Your task to perform on an android device: move a message to another label in the gmail app Image 0: 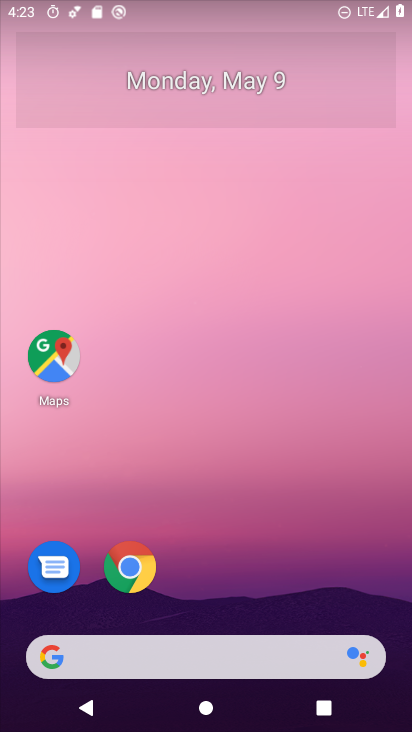
Step 0: drag from (172, 81) to (165, 35)
Your task to perform on an android device: move a message to another label in the gmail app Image 1: 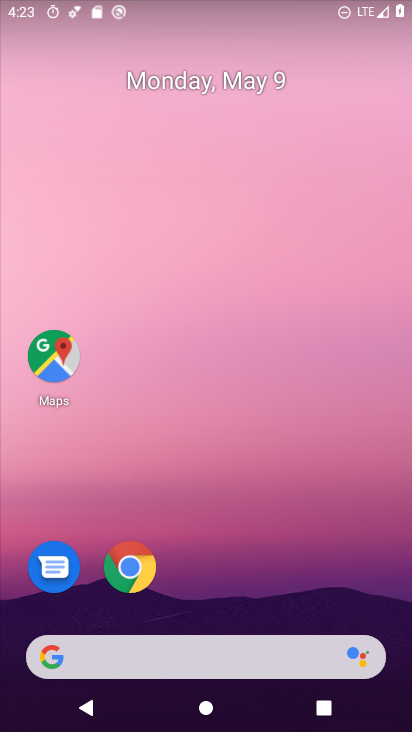
Step 1: drag from (282, 582) to (242, 135)
Your task to perform on an android device: move a message to another label in the gmail app Image 2: 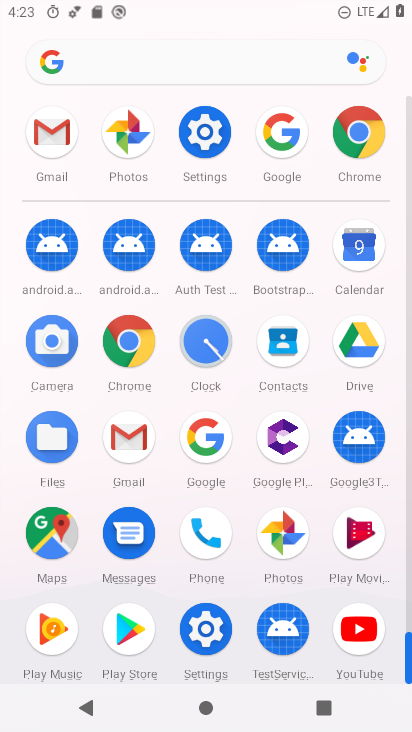
Step 2: click (60, 143)
Your task to perform on an android device: move a message to another label in the gmail app Image 3: 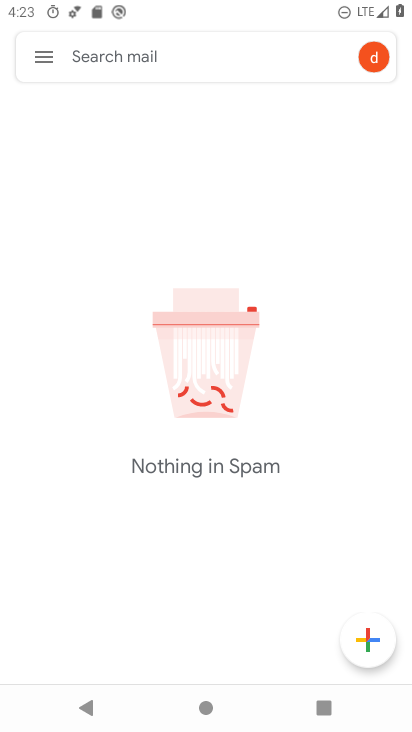
Step 3: click (41, 60)
Your task to perform on an android device: move a message to another label in the gmail app Image 4: 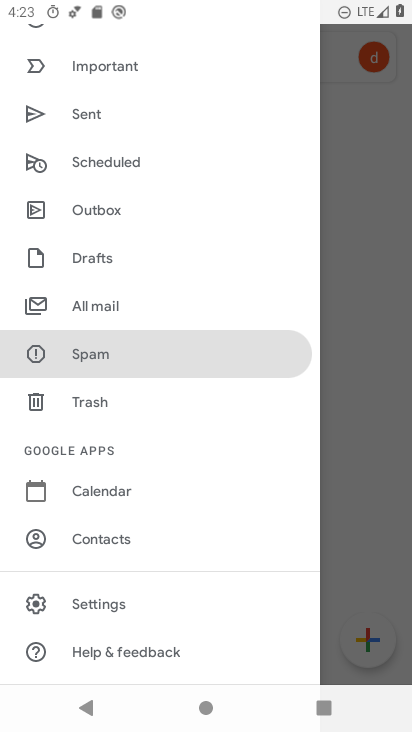
Step 4: drag from (156, 152) to (149, 588)
Your task to perform on an android device: move a message to another label in the gmail app Image 5: 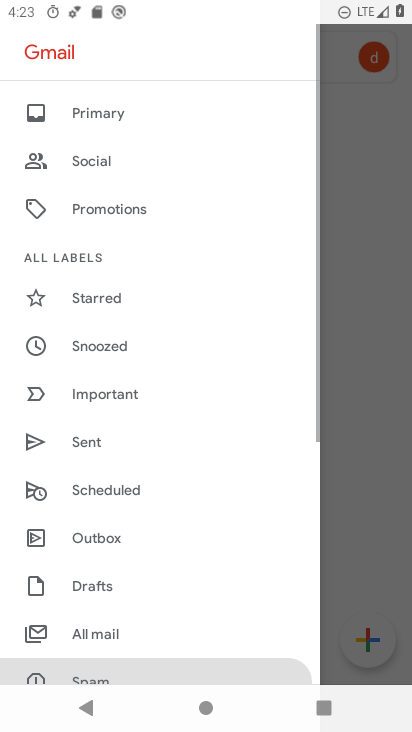
Step 5: click (107, 633)
Your task to perform on an android device: move a message to another label in the gmail app Image 6: 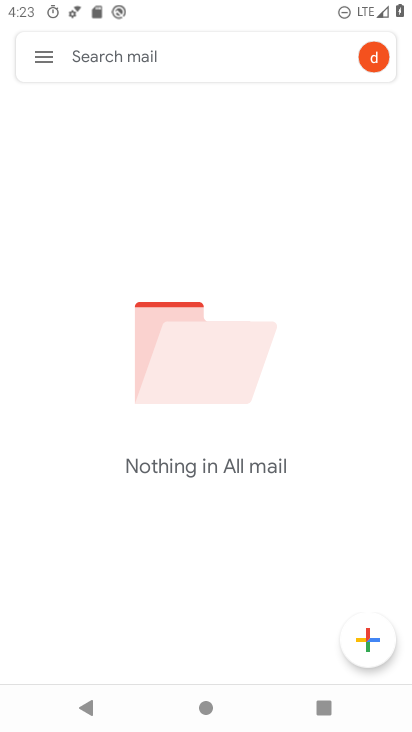
Step 6: task complete